Your task to perform on an android device: What is the news today? Image 0: 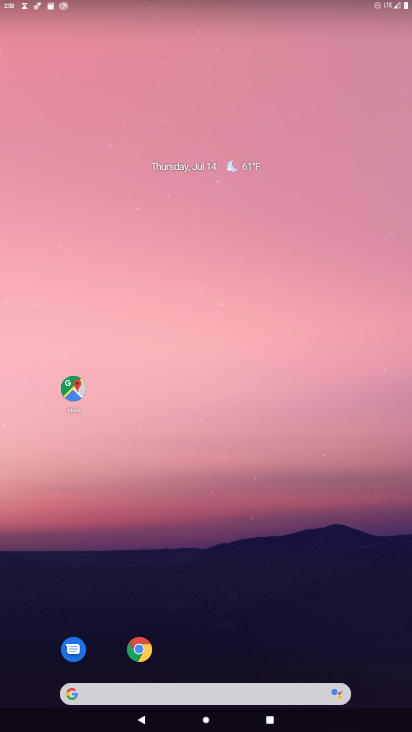
Step 0: drag from (290, 637) to (315, 36)
Your task to perform on an android device: What is the news today? Image 1: 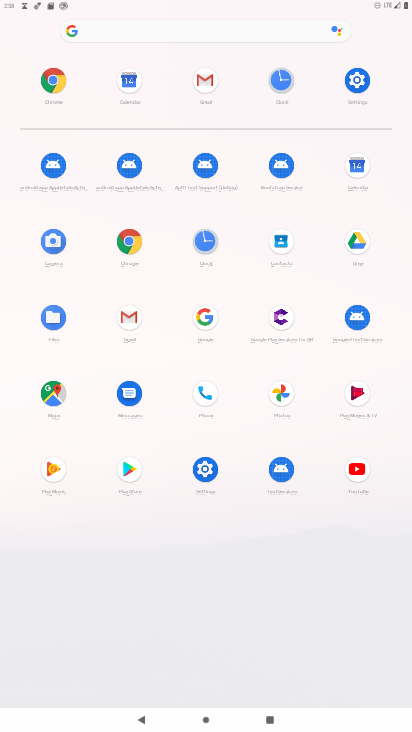
Step 1: click (137, 235)
Your task to perform on an android device: What is the news today? Image 2: 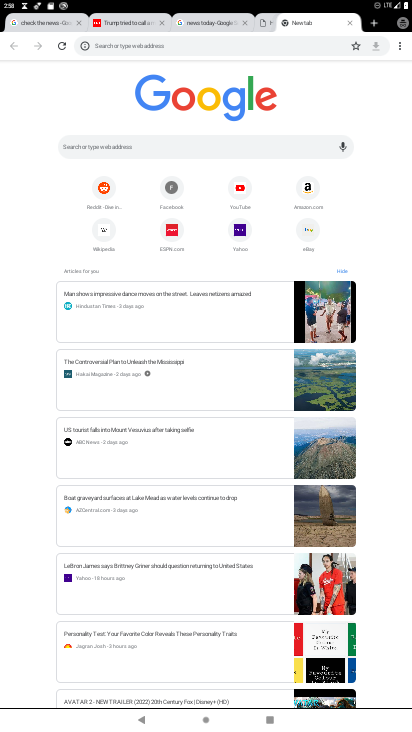
Step 2: click (211, 145)
Your task to perform on an android device: What is the news today? Image 3: 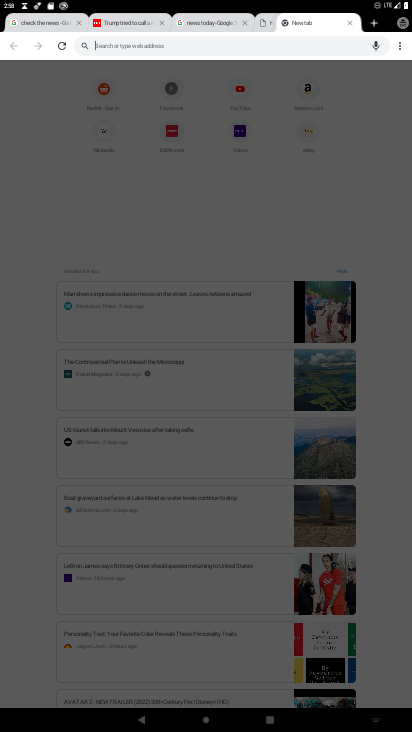
Step 3: type "news today"
Your task to perform on an android device: What is the news today? Image 4: 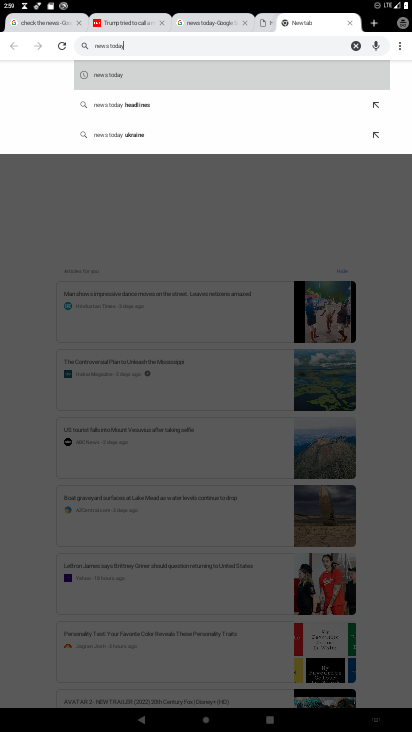
Step 4: click (128, 70)
Your task to perform on an android device: What is the news today? Image 5: 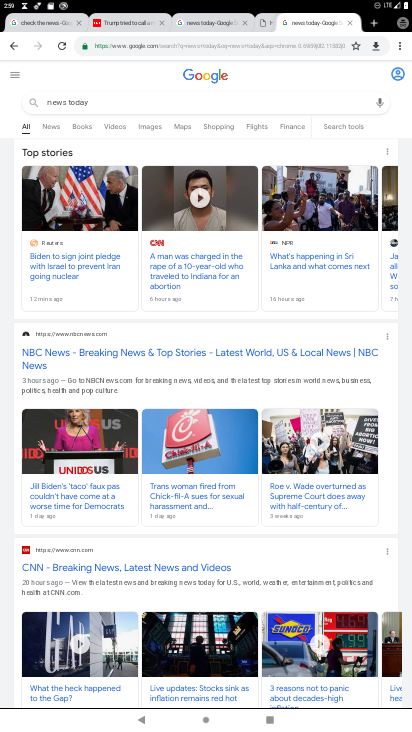
Step 5: task complete